Your task to perform on an android device: toggle sleep mode Image 0: 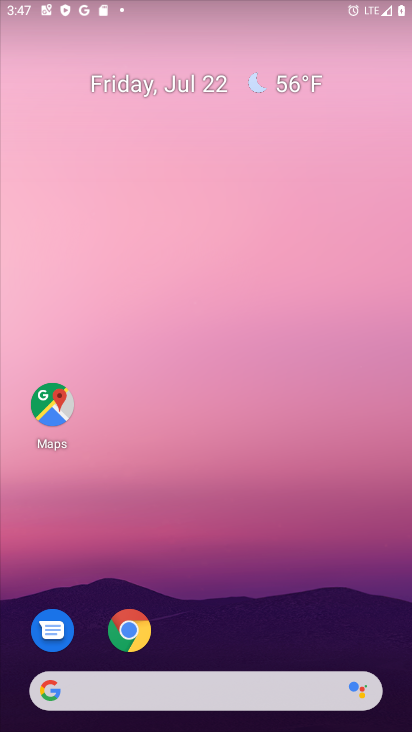
Step 0: drag from (206, 685) to (166, 222)
Your task to perform on an android device: toggle sleep mode Image 1: 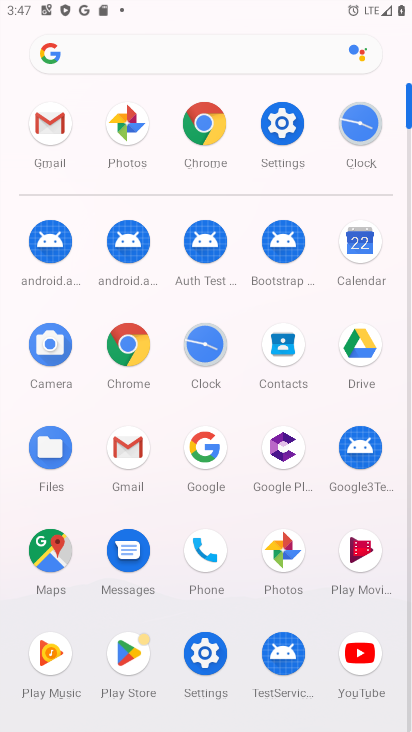
Step 1: click (285, 121)
Your task to perform on an android device: toggle sleep mode Image 2: 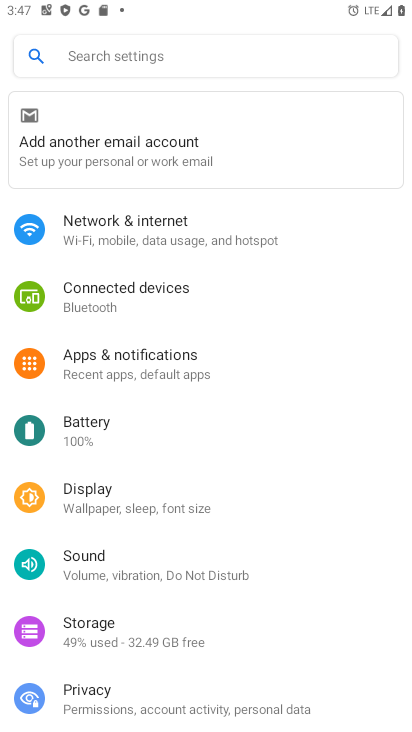
Step 2: click (130, 510)
Your task to perform on an android device: toggle sleep mode Image 3: 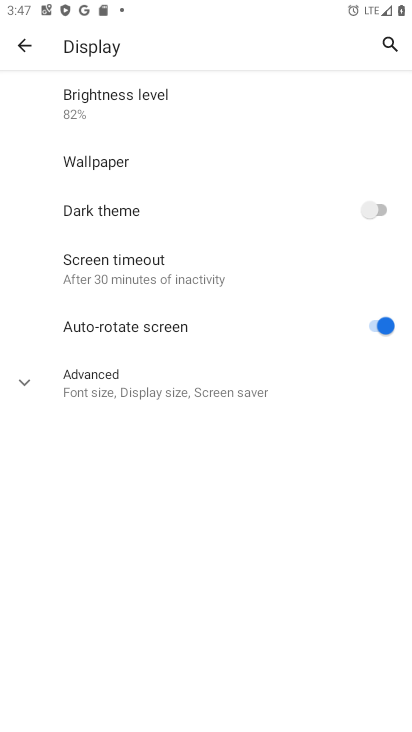
Step 3: click (108, 387)
Your task to perform on an android device: toggle sleep mode Image 4: 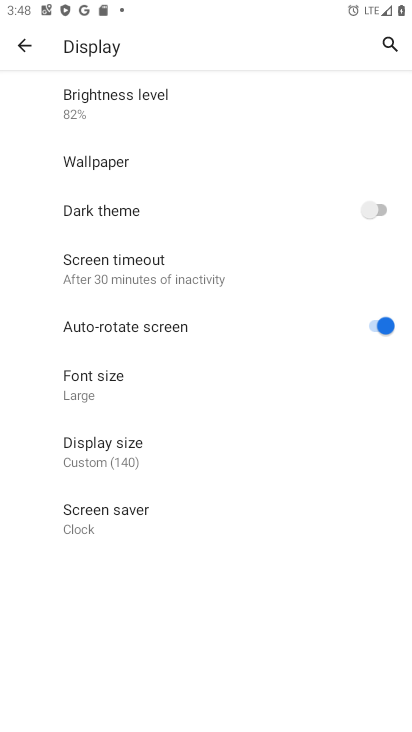
Step 4: task complete